Your task to perform on an android device: find photos in the google photos app Image 0: 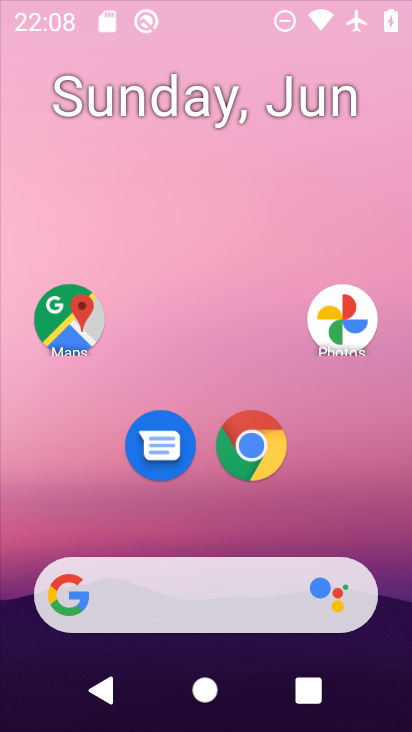
Step 0: press home button
Your task to perform on an android device: find photos in the google photos app Image 1: 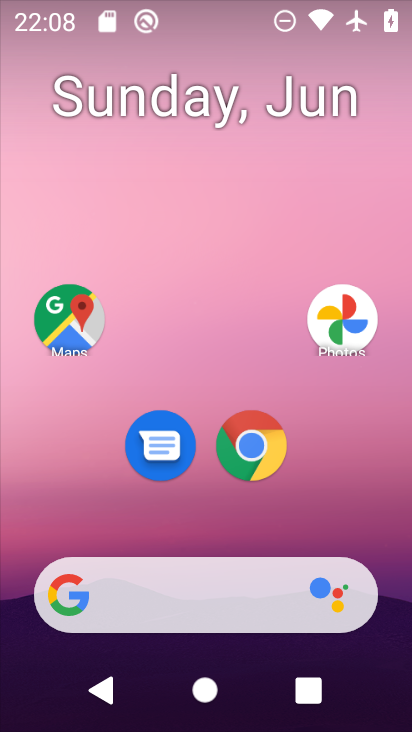
Step 1: click (342, 316)
Your task to perform on an android device: find photos in the google photos app Image 2: 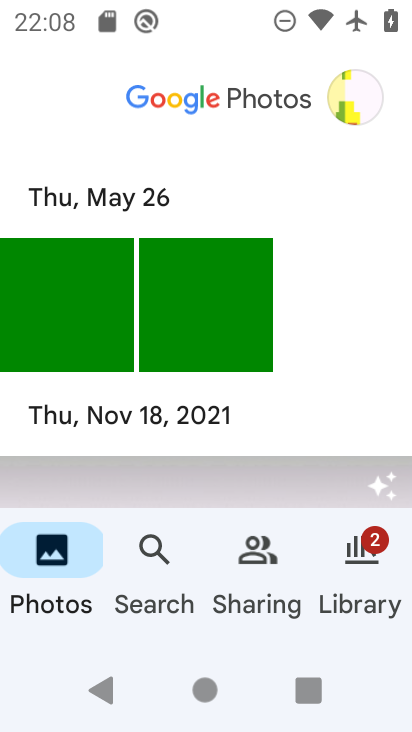
Step 2: click (57, 533)
Your task to perform on an android device: find photos in the google photos app Image 3: 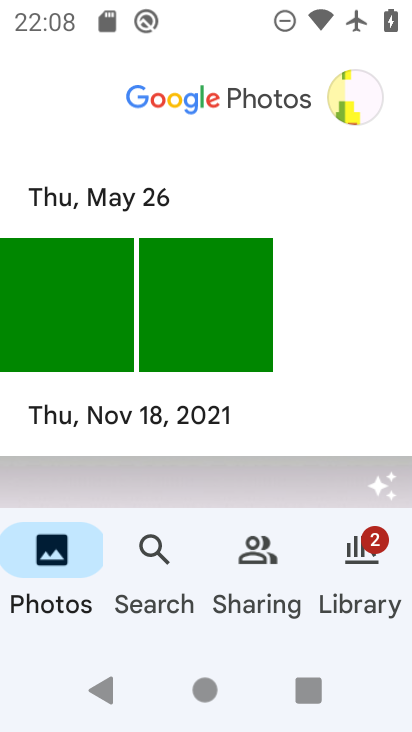
Step 3: click (52, 565)
Your task to perform on an android device: find photos in the google photos app Image 4: 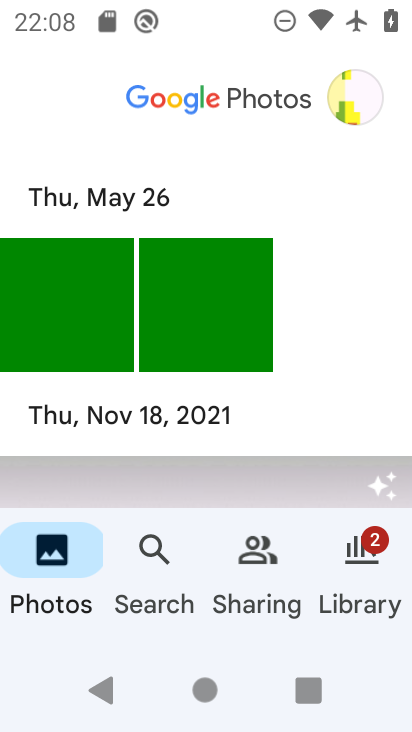
Step 4: drag from (142, 585) to (147, 220)
Your task to perform on an android device: find photos in the google photos app Image 5: 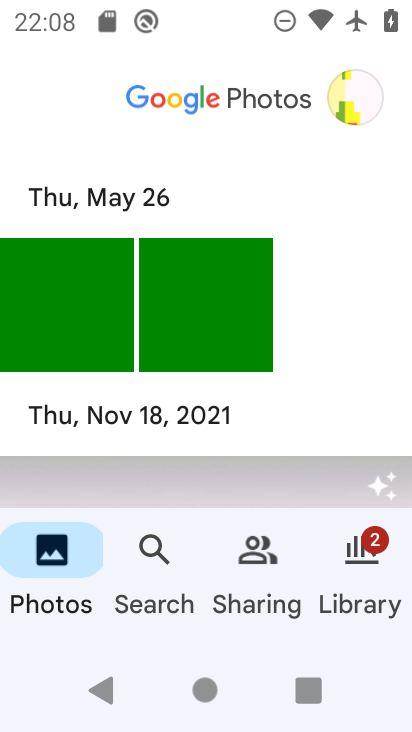
Step 5: click (56, 559)
Your task to perform on an android device: find photos in the google photos app Image 6: 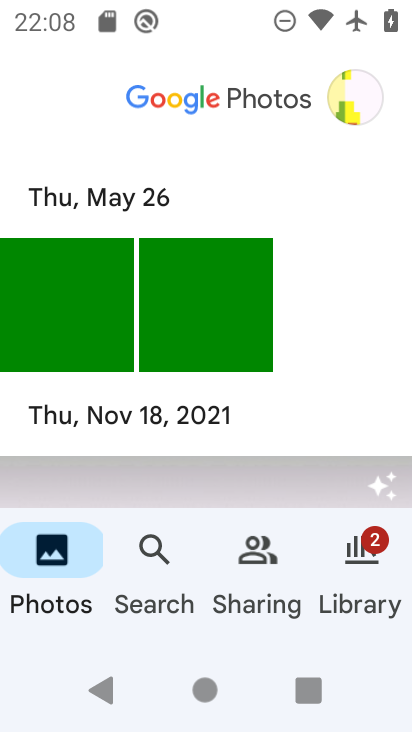
Step 6: click (99, 352)
Your task to perform on an android device: find photos in the google photos app Image 7: 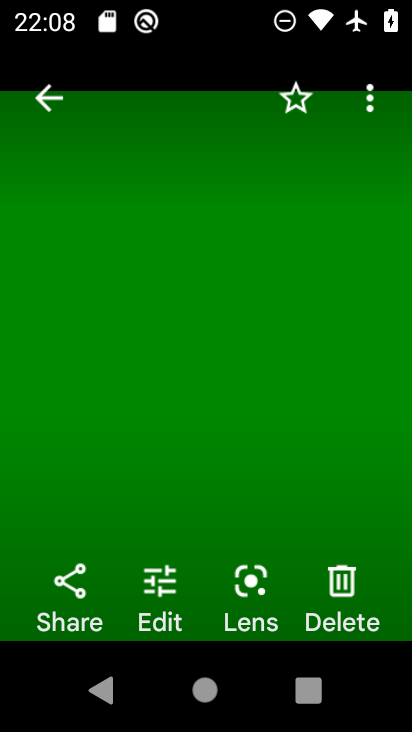
Step 7: click (44, 105)
Your task to perform on an android device: find photos in the google photos app Image 8: 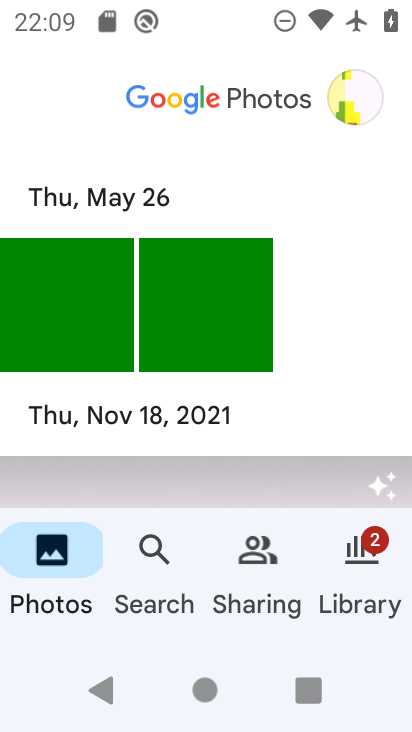
Step 8: task complete